Your task to perform on an android device: turn on notifications settings in the gmail app Image 0: 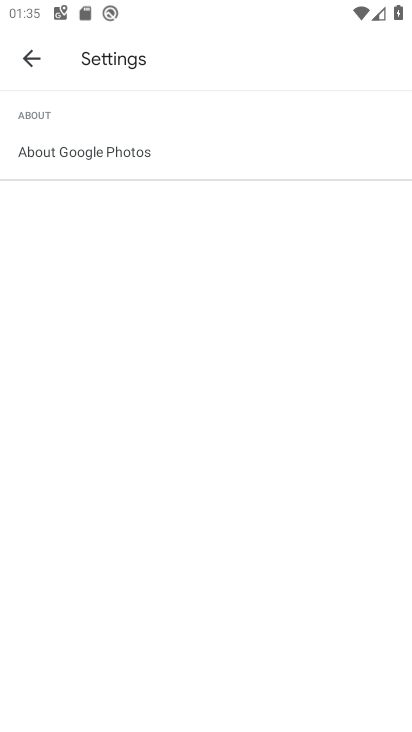
Step 0: press home button
Your task to perform on an android device: turn on notifications settings in the gmail app Image 1: 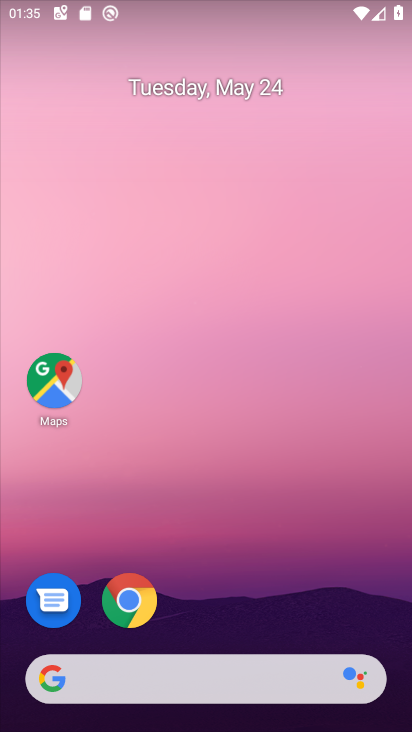
Step 1: drag from (266, 534) to (267, 186)
Your task to perform on an android device: turn on notifications settings in the gmail app Image 2: 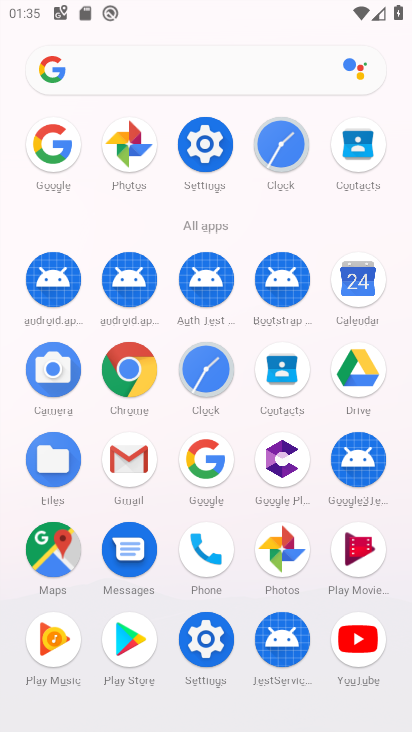
Step 2: click (198, 136)
Your task to perform on an android device: turn on notifications settings in the gmail app Image 3: 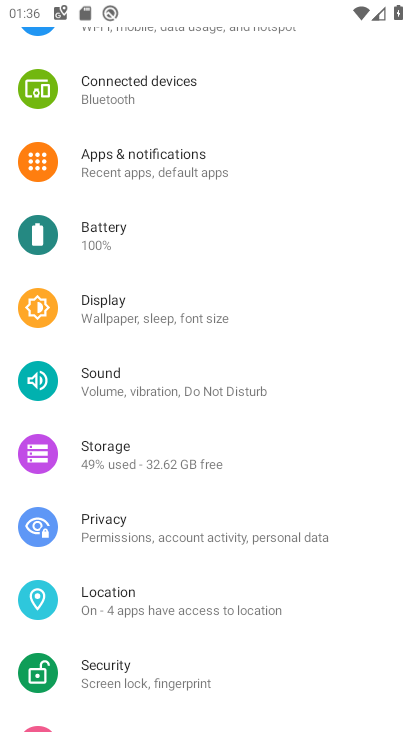
Step 3: press home button
Your task to perform on an android device: turn on notifications settings in the gmail app Image 4: 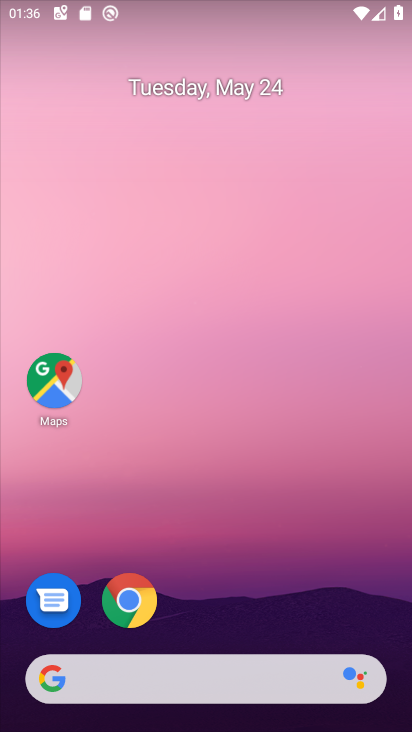
Step 4: drag from (252, 566) to (224, 266)
Your task to perform on an android device: turn on notifications settings in the gmail app Image 5: 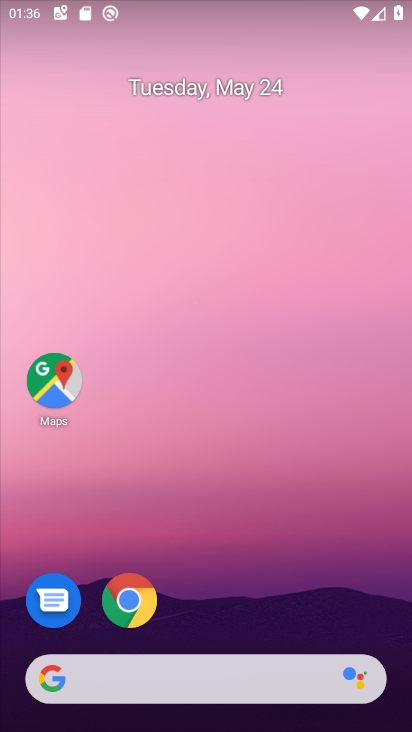
Step 5: drag from (263, 558) to (260, 286)
Your task to perform on an android device: turn on notifications settings in the gmail app Image 6: 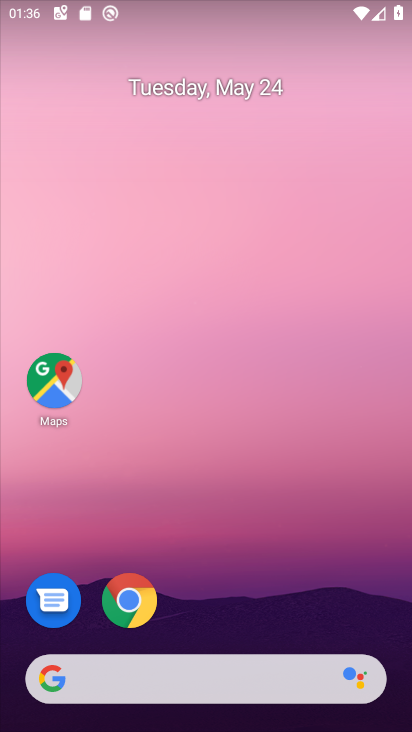
Step 6: drag from (248, 558) to (244, 149)
Your task to perform on an android device: turn on notifications settings in the gmail app Image 7: 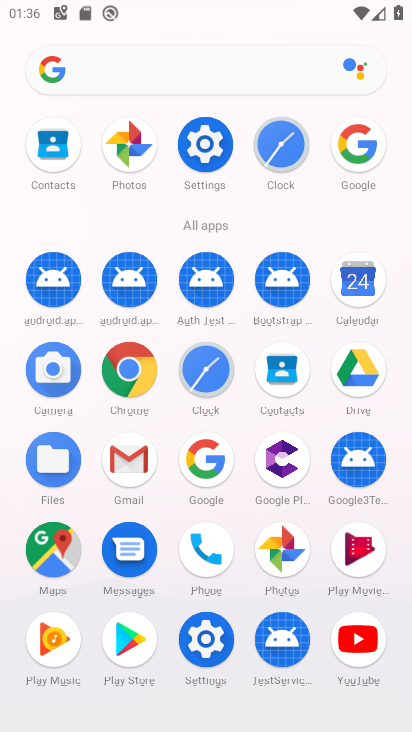
Step 7: click (140, 473)
Your task to perform on an android device: turn on notifications settings in the gmail app Image 8: 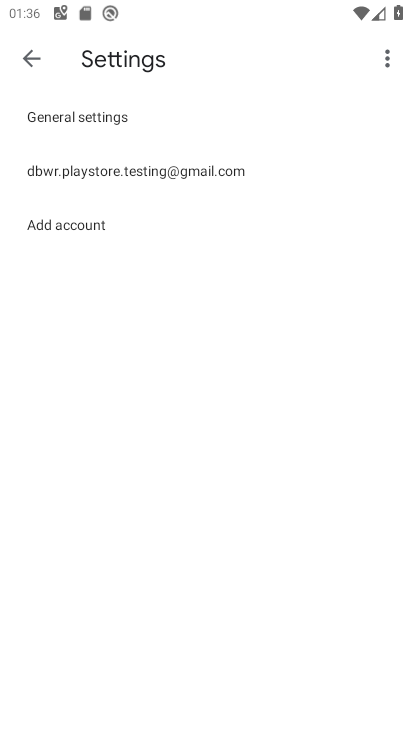
Step 8: press back button
Your task to perform on an android device: turn on notifications settings in the gmail app Image 9: 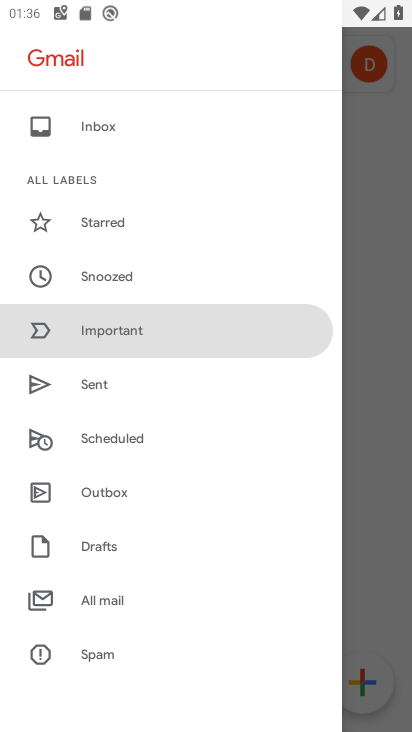
Step 9: drag from (186, 609) to (164, 288)
Your task to perform on an android device: turn on notifications settings in the gmail app Image 10: 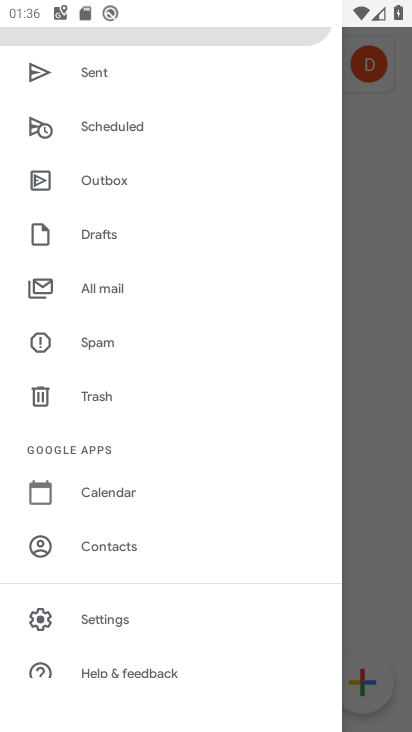
Step 10: drag from (123, 636) to (142, 216)
Your task to perform on an android device: turn on notifications settings in the gmail app Image 11: 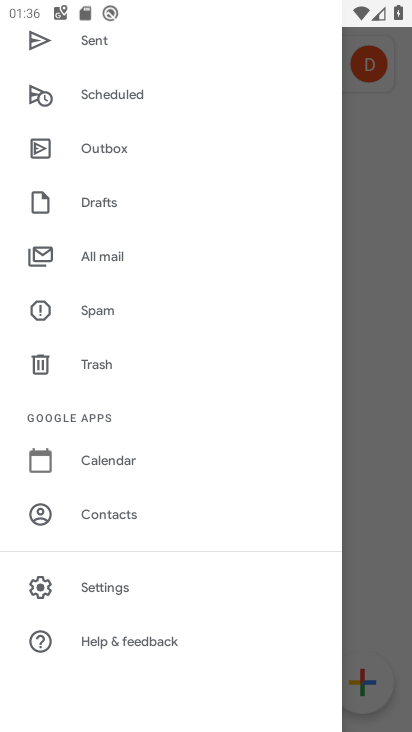
Step 11: click (112, 563)
Your task to perform on an android device: turn on notifications settings in the gmail app Image 12: 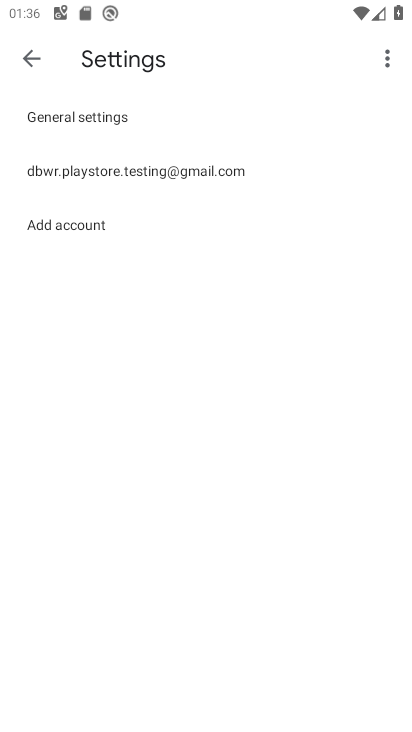
Step 12: click (376, 49)
Your task to perform on an android device: turn on notifications settings in the gmail app Image 13: 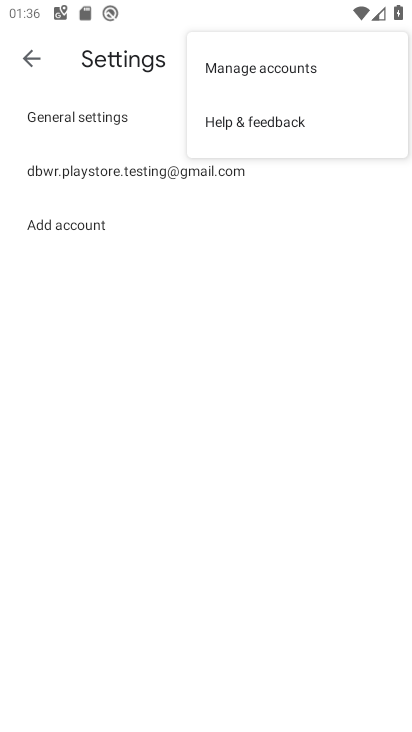
Step 13: task complete